Your task to perform on an android device: Show me popular games on the Play Store Image 0: 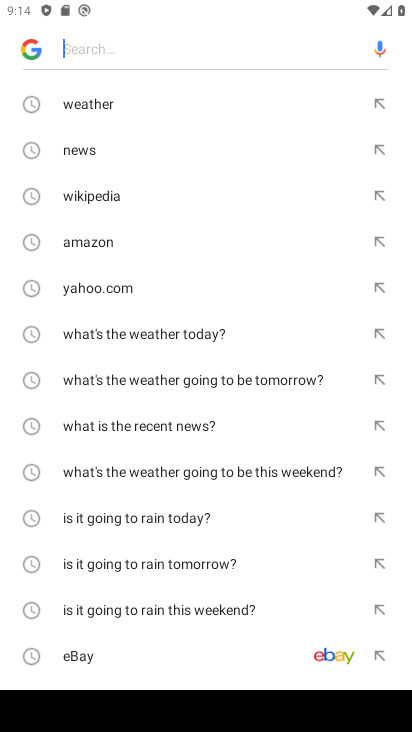
Step 0: task complete